Your task to perform on an android device: Open location settings Image 0: 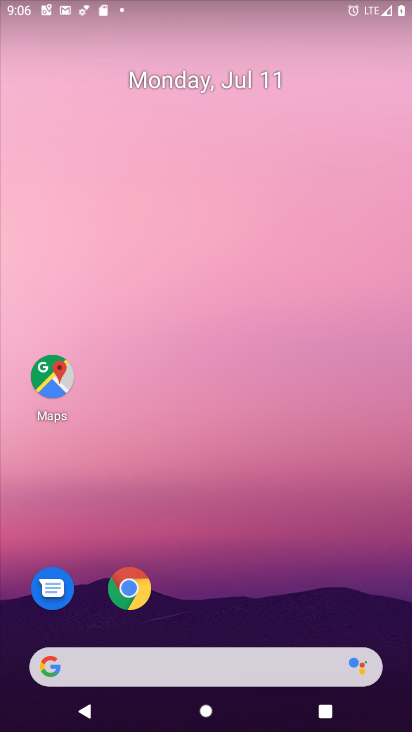
Step 0: drag from (188, 669) to (341, 10)
Your task to perform on an android device: Open location settings Image 1: 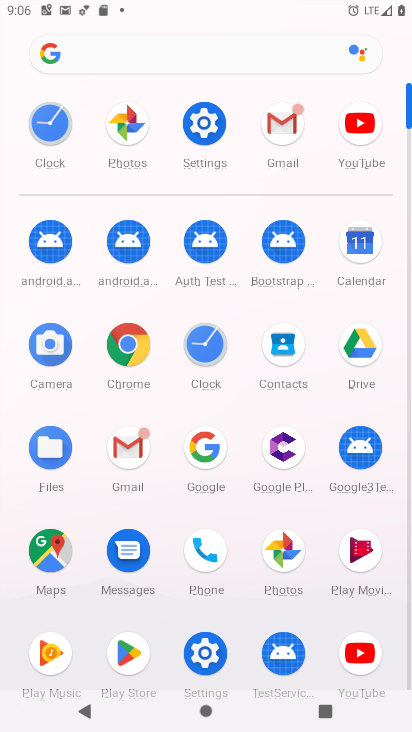
Step 1: click (192, 126)
Your task to perform on an android device: Open location settings Image 2: 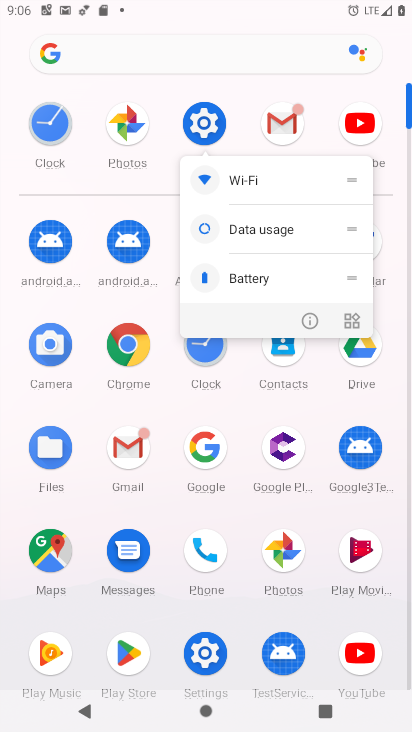
Step 2: click (194, 126)
Your task to perform on an android device: Open location settings Image 3: 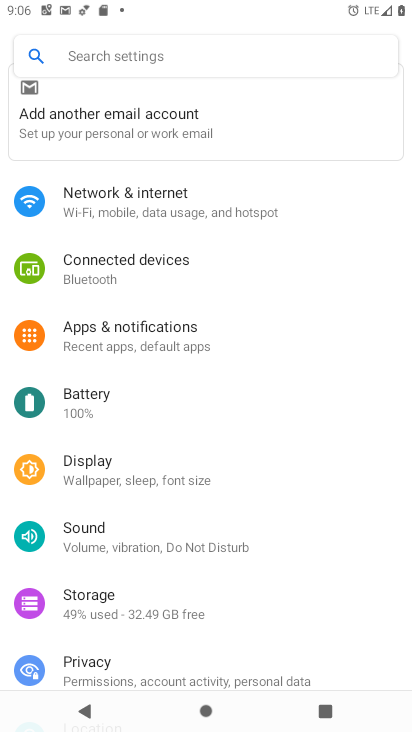
Step 3: drag from (237, 628) to (376, 129)
Your task to perform on an android device: Open location settings Image 4: 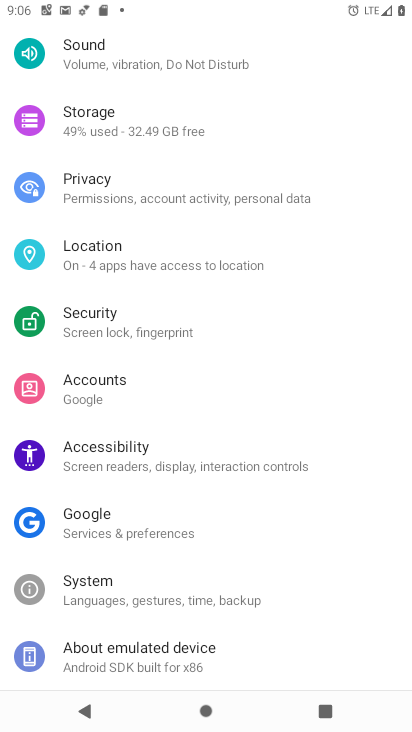
Step 4: click (131, 254)
Your task to perform on an android device: Open location settings Image 5: 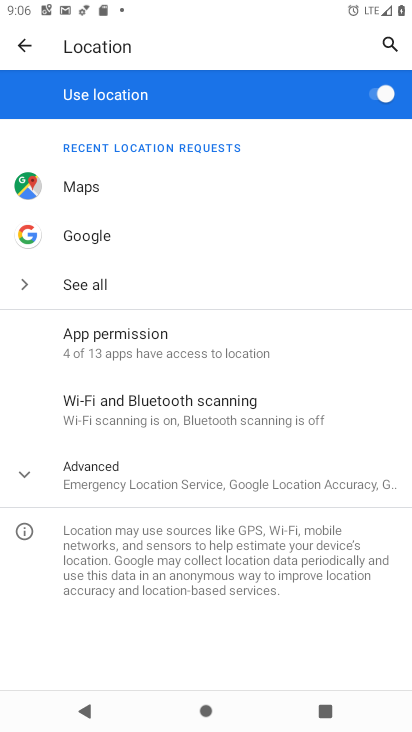
Step 5: task complete